Your task to perform on an android device: turn on translation in the chrome app Image 0: 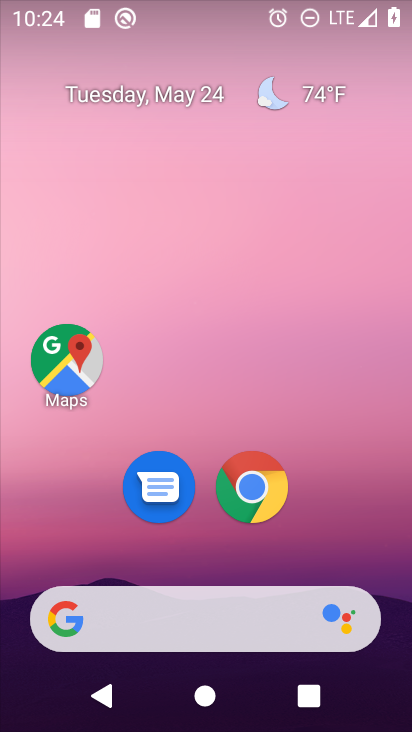
Step 0: click (255, 495)
Your task to perform on an android device: turn on translation in the chrome app Image 1: 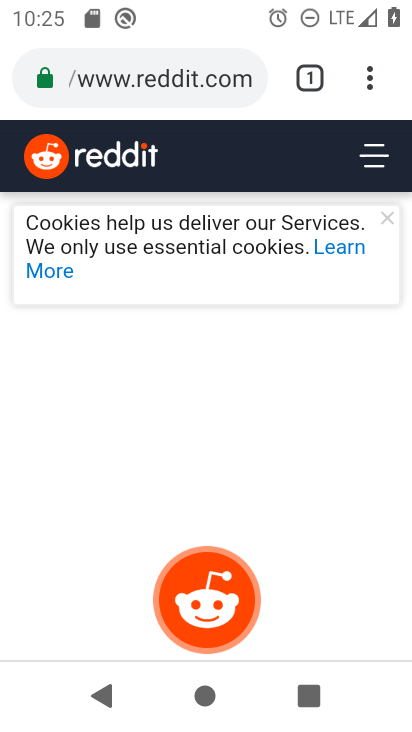
Step 1: click (372, 78)
Your task to perform on an android device: turn on translation in the chrome app Image 2: 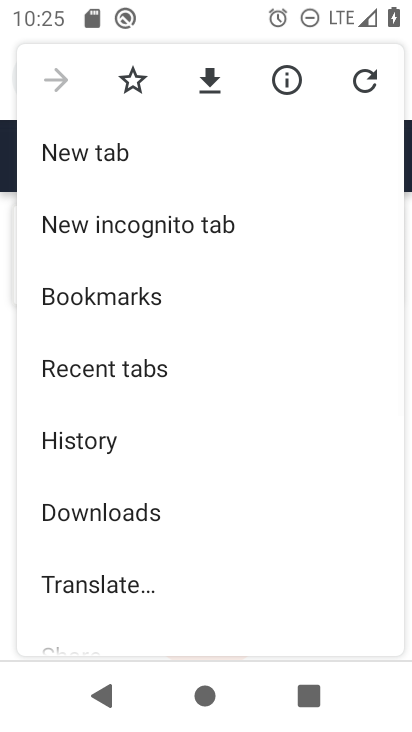
Step 2: drag from (243, 570) to (181, 189)
Your task to perform on an android device: turn on translation in the chrome app Image 3: 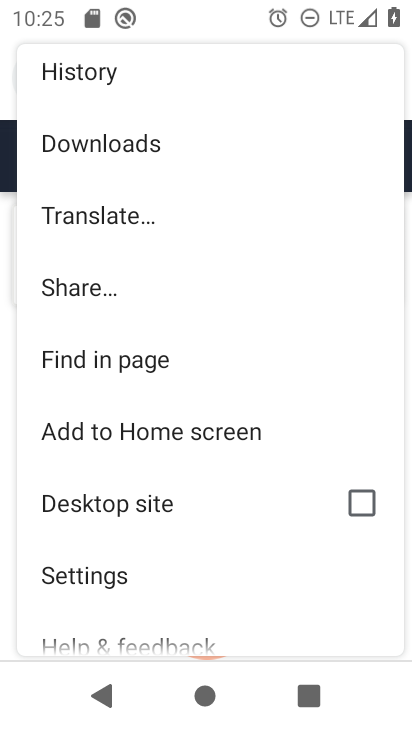
Step 3: click (119, 571)
Your task to perform on an android device: turn on translation in the chrome app Image 4: 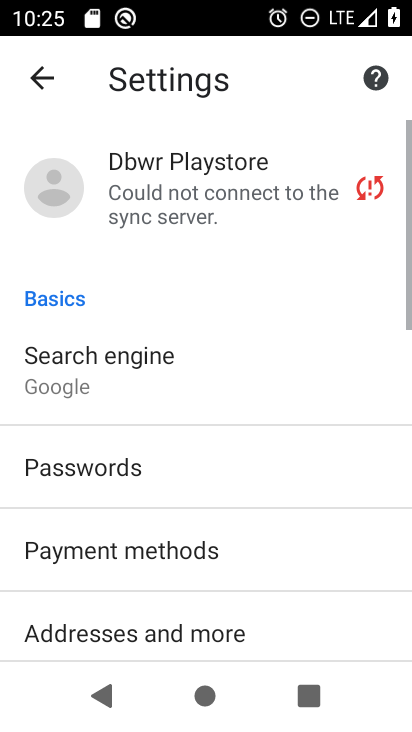
Step 4: drag from (229, 616) to (167, 43)
Your task to perform on an android device: turn on translation in the chrome app Image 5: 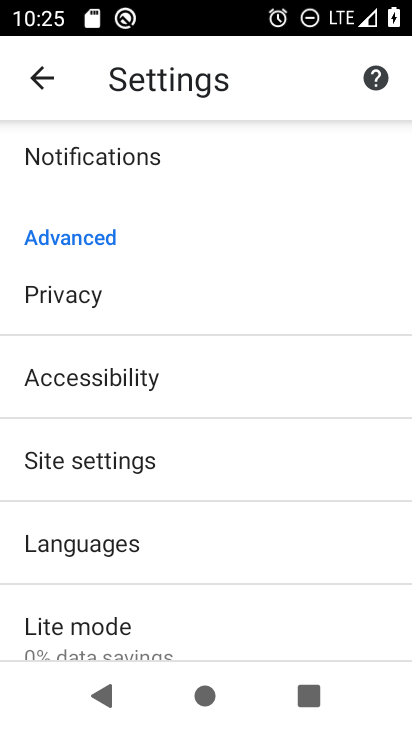
Step 5: click (123, 543)
Your task to perform on an android device: turn on translation in the chrome app Image 6: 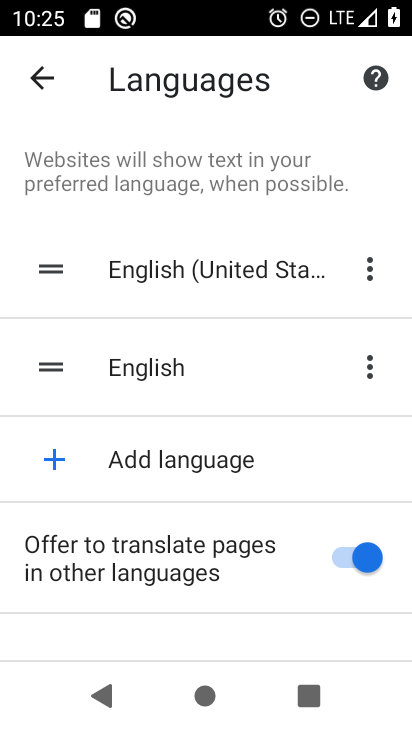
Step 6: task complete